Your task to perform on an android device: check out phone information Image 0: 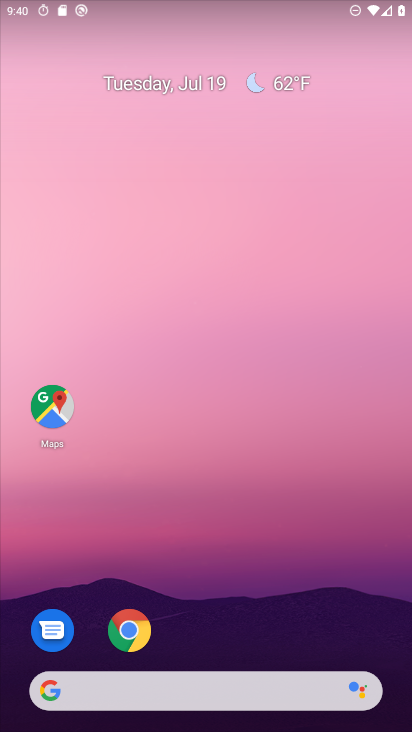
Step 0: drag from (192, 667) to (270, 389)
Your task to perform on an android device: check out phone information Image 1: 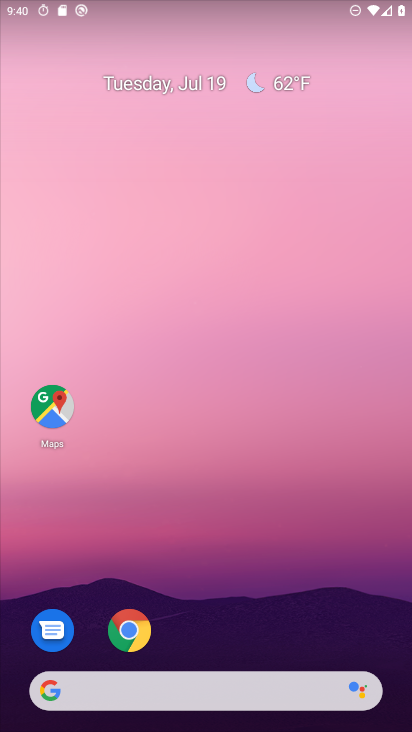
Step 1: drag from (199, 642) to (247, 326)
Your task to perform on an android device: check out phone information Image 2: 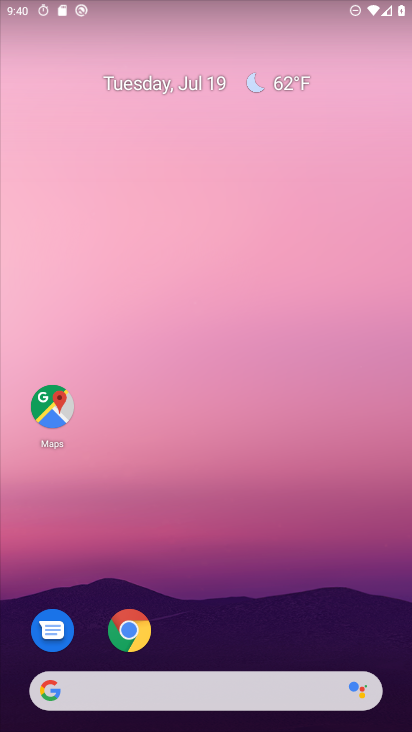
Step 2: drag from (219, 659) to (219, 272)
Your task to perform on an android device: check out phone information Image 3: 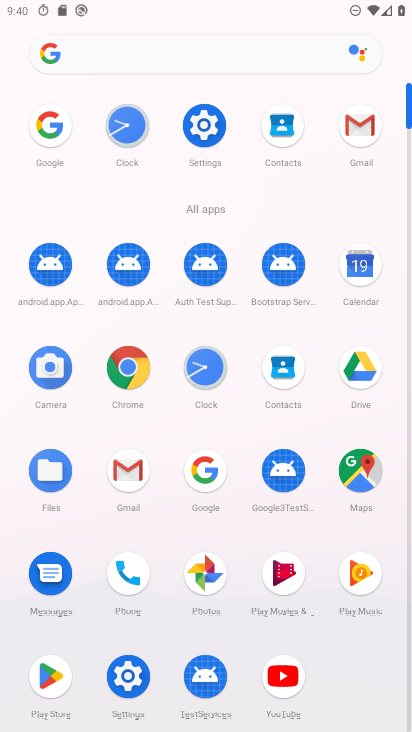
Step 3: click (127, 576)
Your task to perform on an android device: check out phone information Image 4: 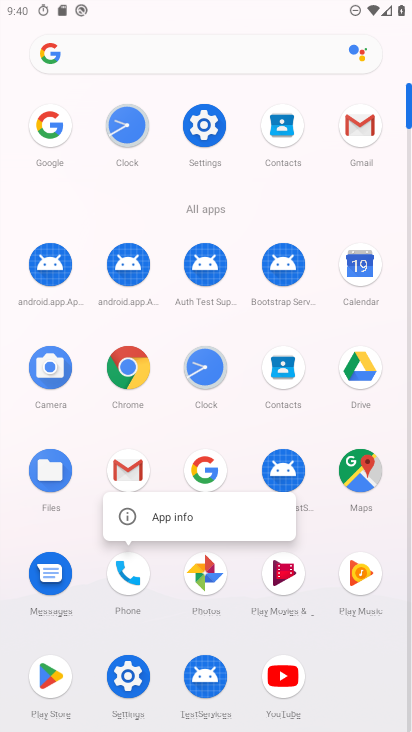
Step 4: click (122, 519)
Your task to perform on an android device: check out phone information Image 5: 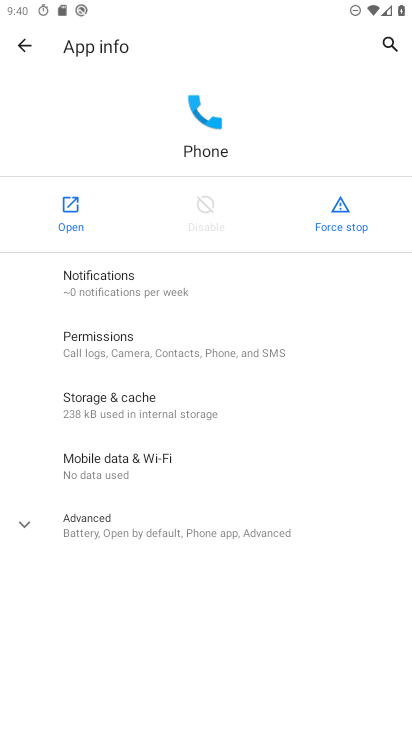
Step 5: click (118, 527)
Your task to perform on an android device: check out phone information Image 6: 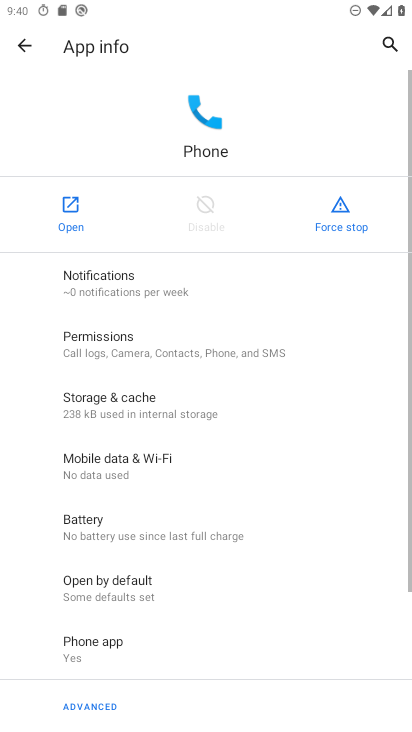
Step 6: task complete